Your task to perform on an android device: delete browsing data in the chrome app Image 0: 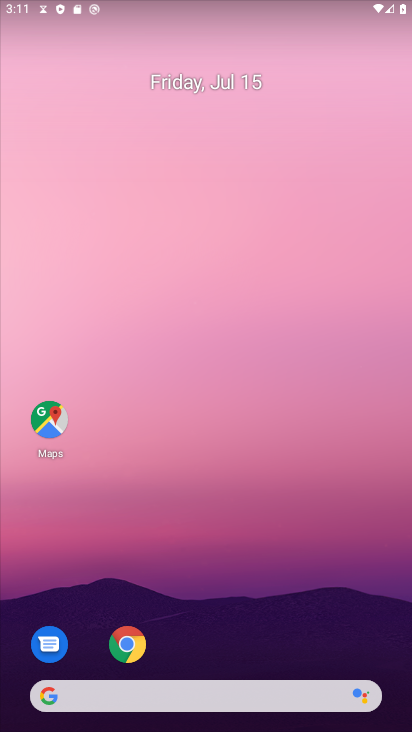
Step 0: drag from (339, 705) to (336, 6)
Your task to perform on an android device: delete browsing data in the chrome app Image 1: 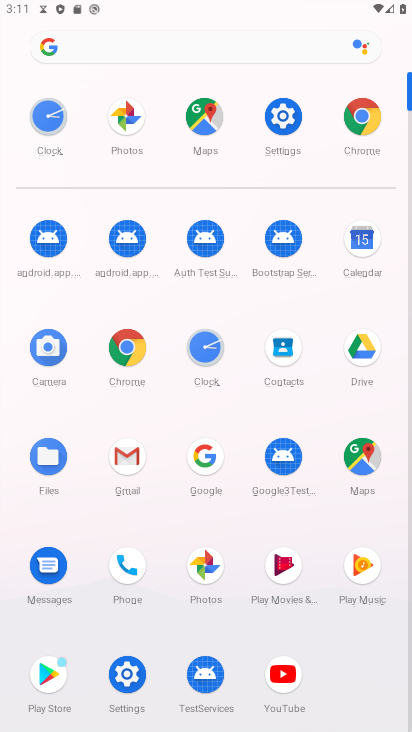
Step 1: click (127, 341)
Your task to perform on an android device: delete browsing data in the chrome app Image 2: 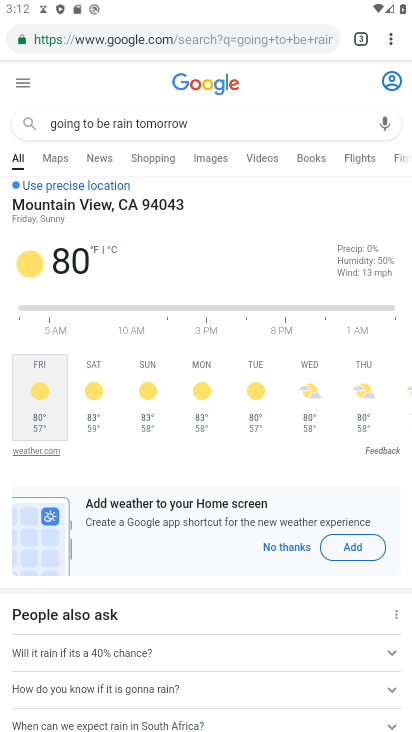
Step 2: click (394, 34)
Your task to perform on an android device: delete browsing data in the chrome app Image 3: 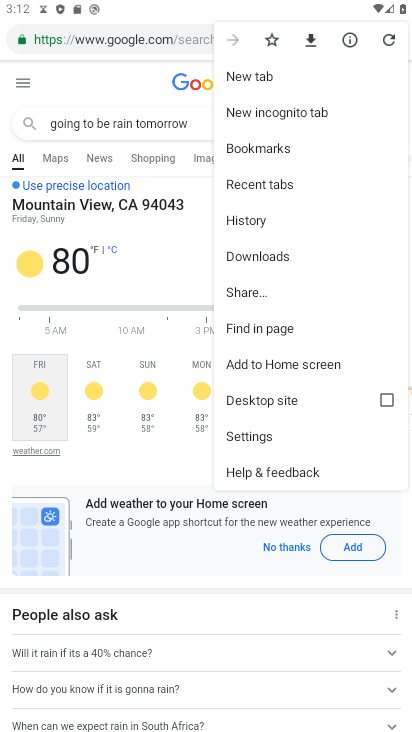
Step 3: click (250, 441)
Your task to perform on an android device: delete browsing data in the chrome app Image 4: 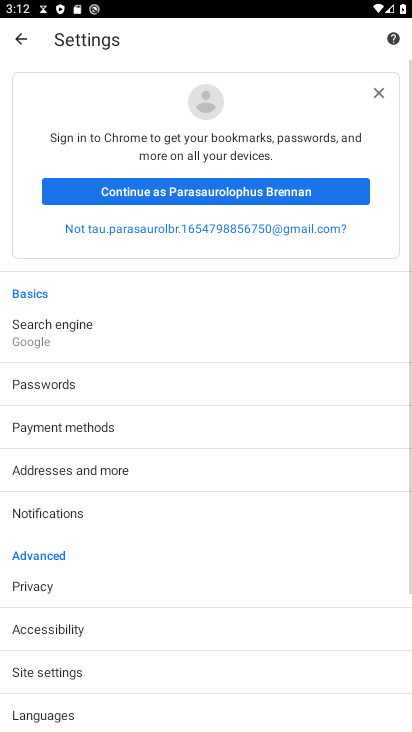
Step 4: drag from (91, 709) to (62, 528)
Your task to perform on an android device: delete browsing data in the chrome app Image 5: 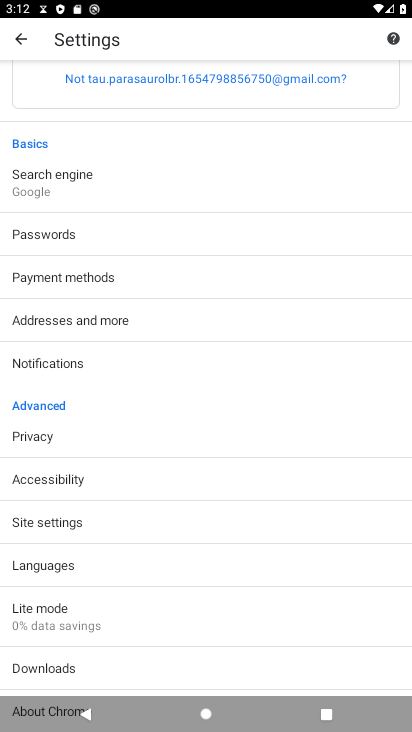
Step 5: click (42, 447)
Your task to perform on an android device: delete browsing data in the chrome app Image 6: 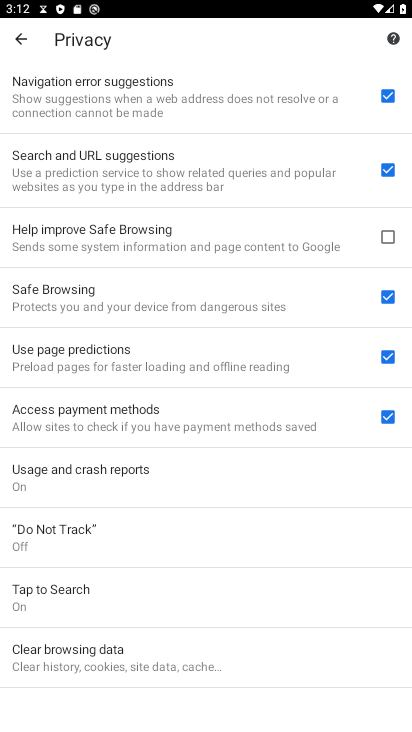
Step 6: click (123, 660)
Your task to perform on an android device: delete browsing data in the chrome app Image 7: 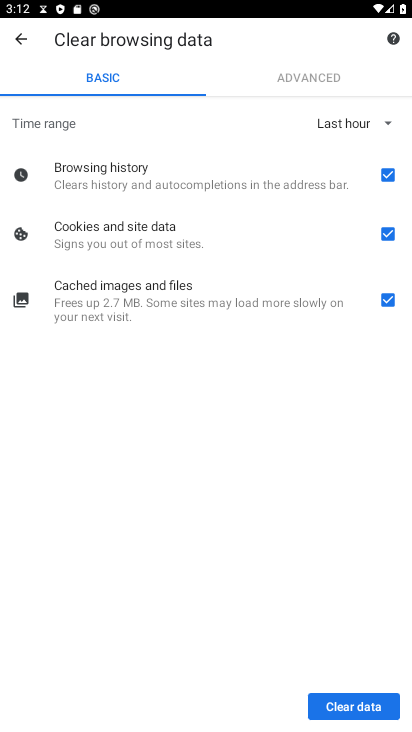
Step 7: click (350, 712)
Your task to perform on an android device: delete browsing data in the chrome app Image 8: 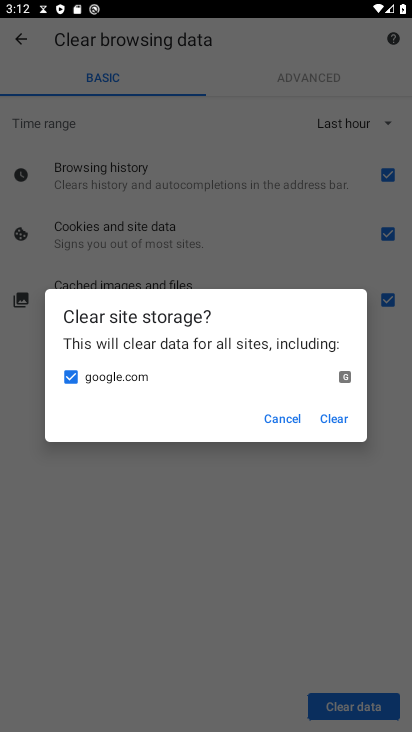
Step 8: click (340, 417)
Your task to perform on an android device: delete browsing data in the chrome app Image 9: 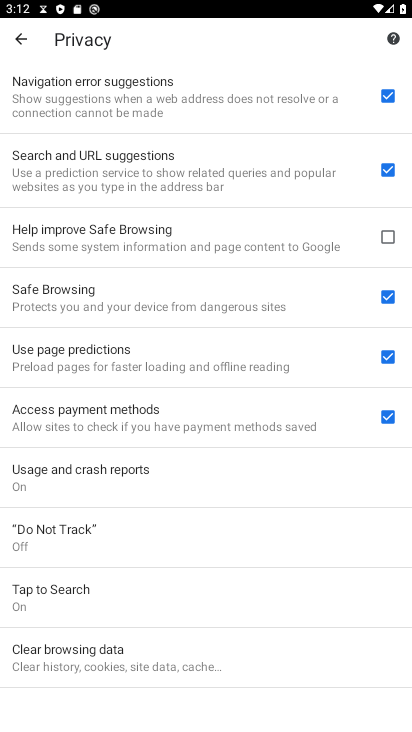
Step 9: task complete